Your task to perform on an android device: Open the stopwatch Image 0: 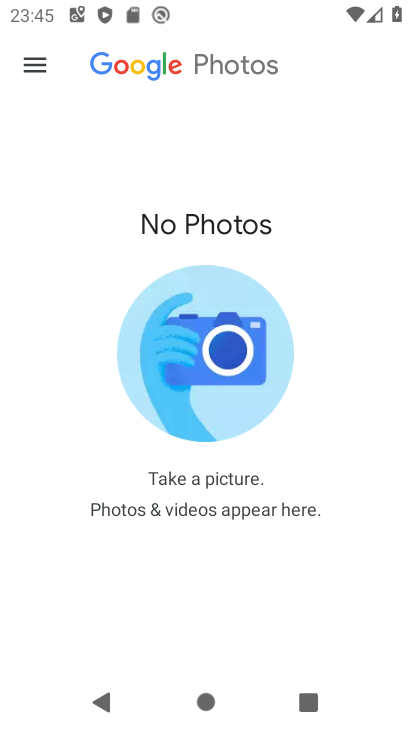
Step 0: press home button
Your task to perform on an android device: Open the stopwatch Image 1: 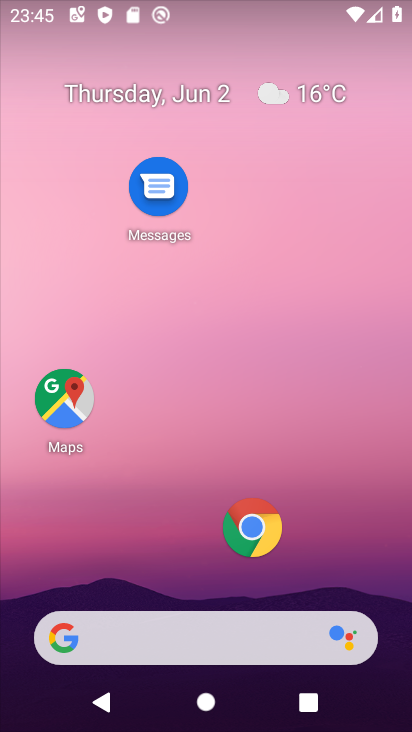
Step 1: drag from (222, 590) to (250, 56)
Your task to perform on an android device: Open the stopwatch Image 2: 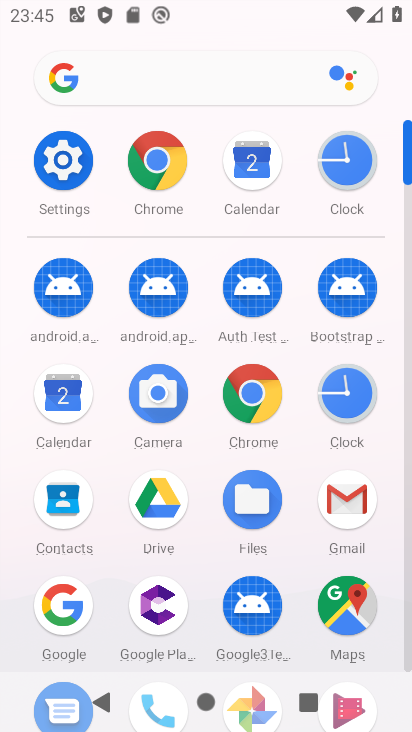
Step 2: click (347, 383)
Your task to perform on an android device: Open the stopwatch Image 3: 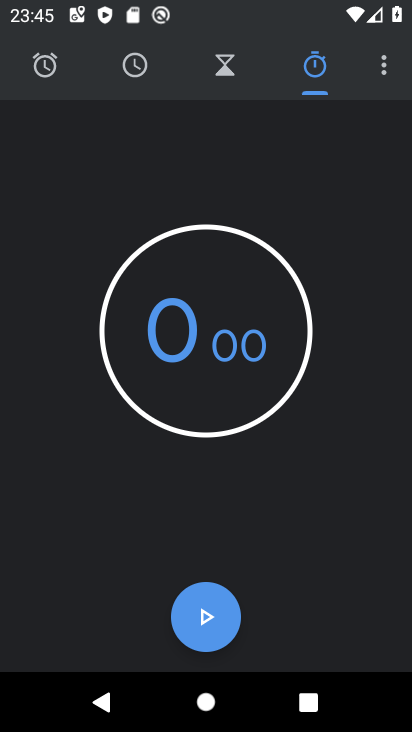
Step 3: click (207, 612)
Your task to perform on an android device: Open the stopwatch Image 4: 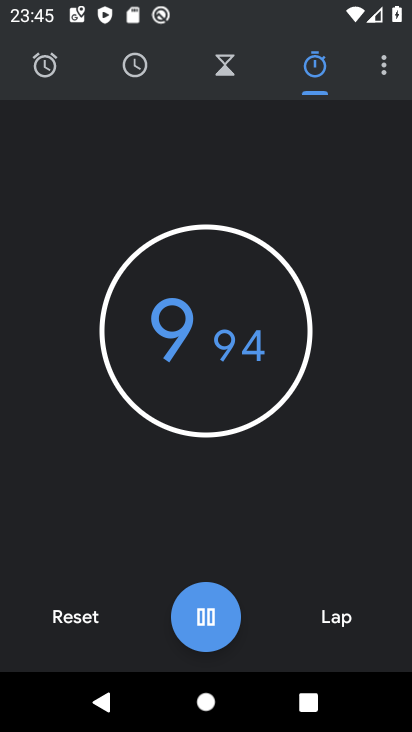
Step 4: task complete